Your task to perform on an android device: Is it going to rain today? Image 0: 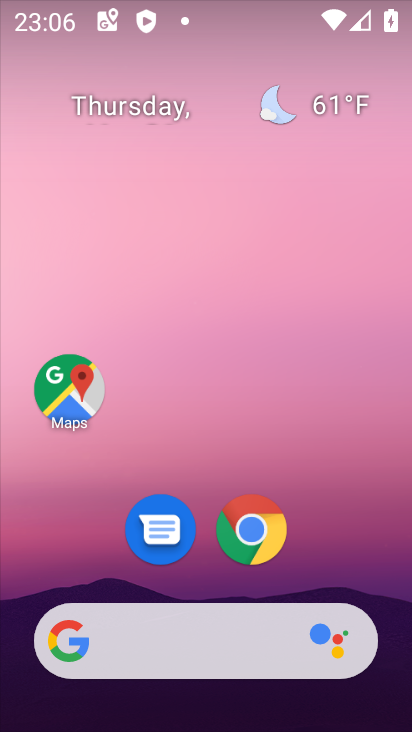
Step 0: drag from (347, 545) to (325, 404)
Your task to perform on an android device: Is it going to rain today? Image 1: 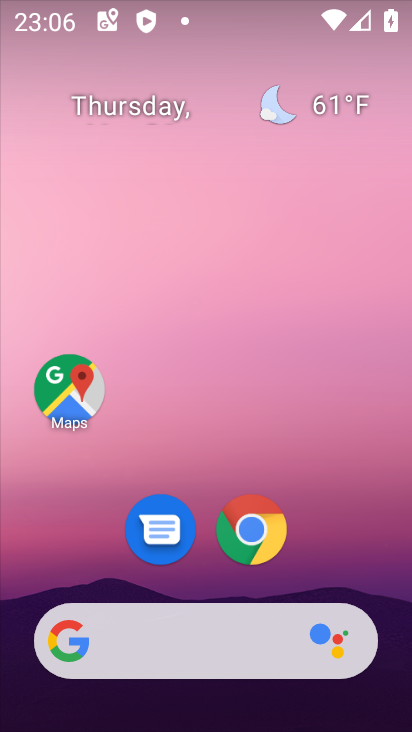
Step 1: drag from (319, 563) to (334, 0)
Your task to perform on an android device: Is it going to rain today? Image 2: 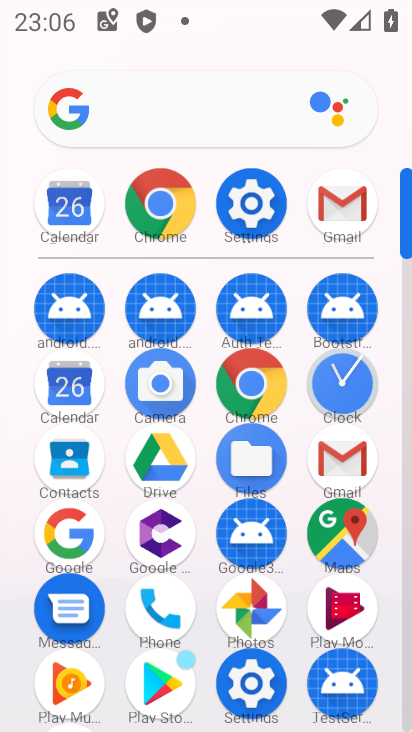
Step 2: click (76, 410)
Your task to perform on an android device: Is it going to rain today? Image 3: 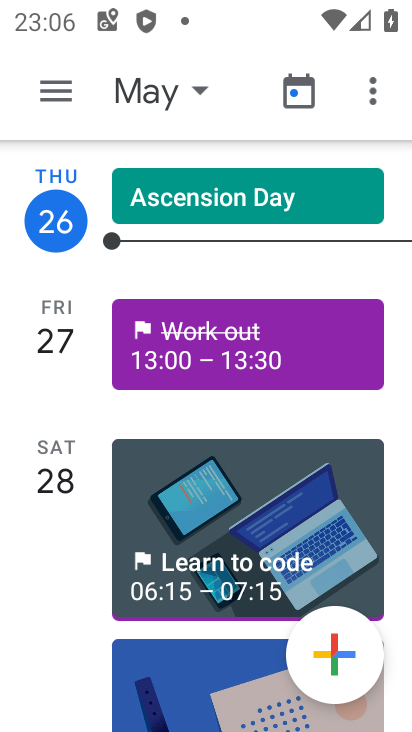
Step 3: task complete